Your task to perform on an android device: change timer sound Image 0: 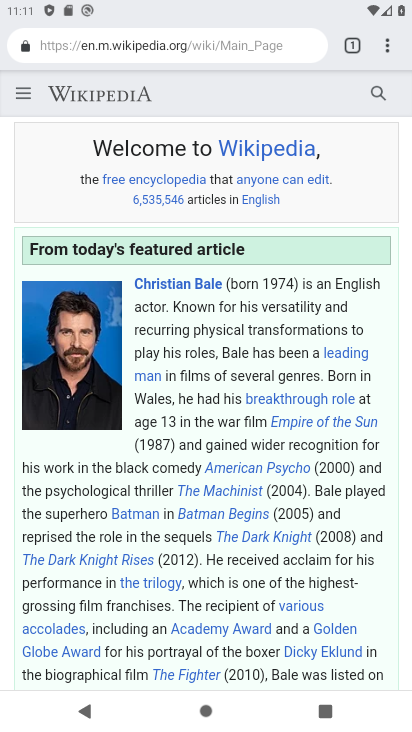
Step 0: press home button
Your task to perform on an android device: change timer sound Image 1: 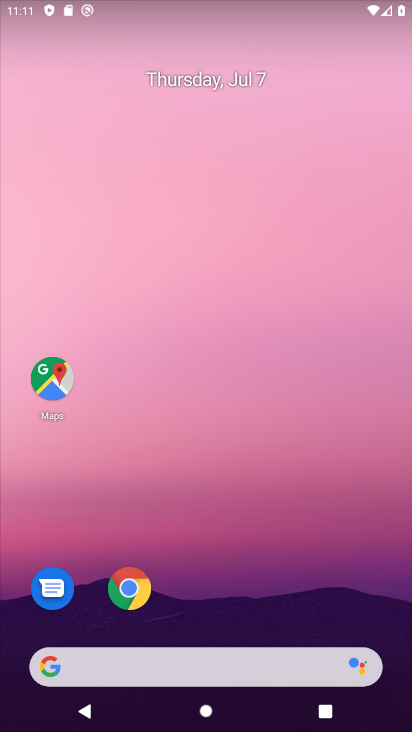
Step 1: drag from (241, 560) to (243, 228)
Your task to perform on an android device: change timer sound Image 2: 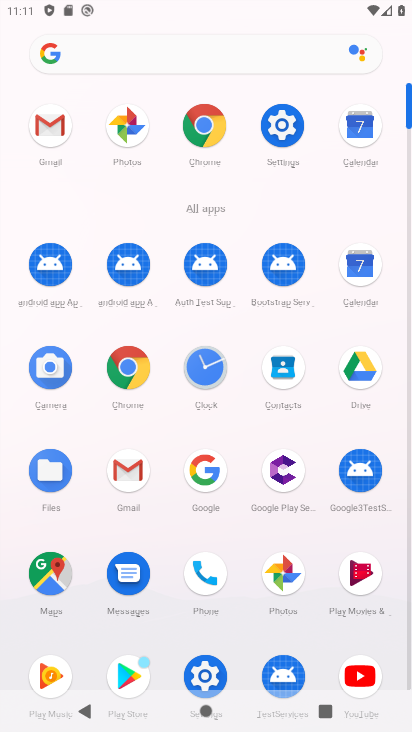
Step 2: click (208, 362)
Your task to perform on an android device: change timer sound Image 3: 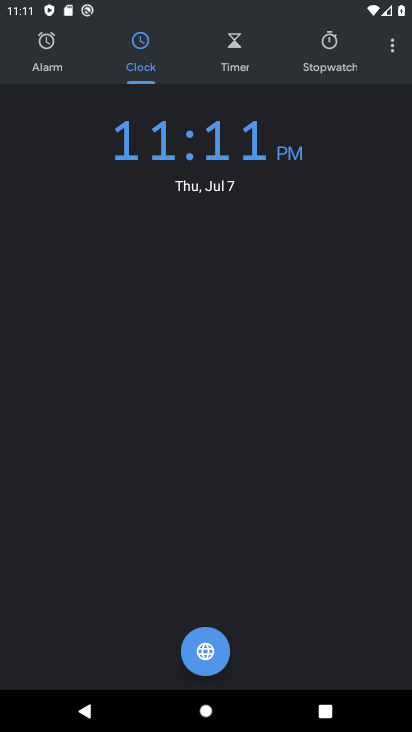
Step 3: click (387, 42)
Your task to perform on an android device: change timer sound Image 4: 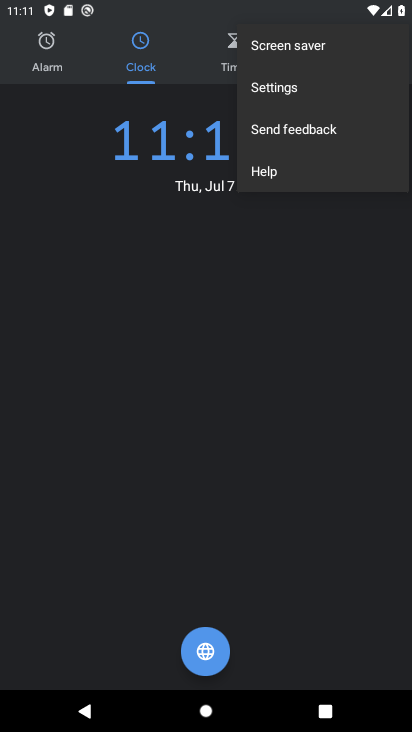
Step 4: click (329, 87)
Your task to perform on an android device: change timer sound Image 5: 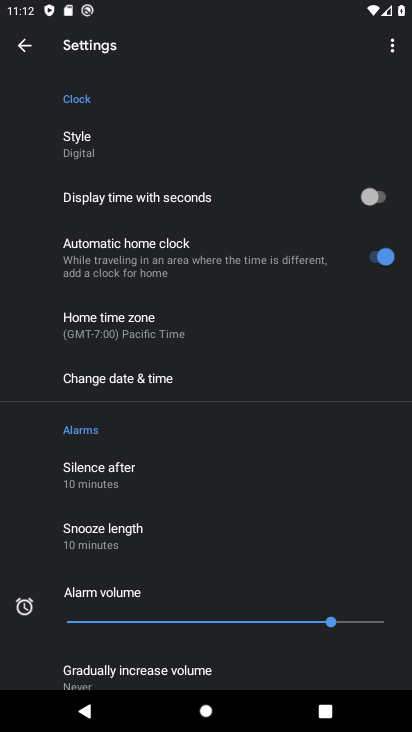
Step 5: drag from (189, 430) to (189, 258)
Your task to perform on an android device: change timer sound Image 6: 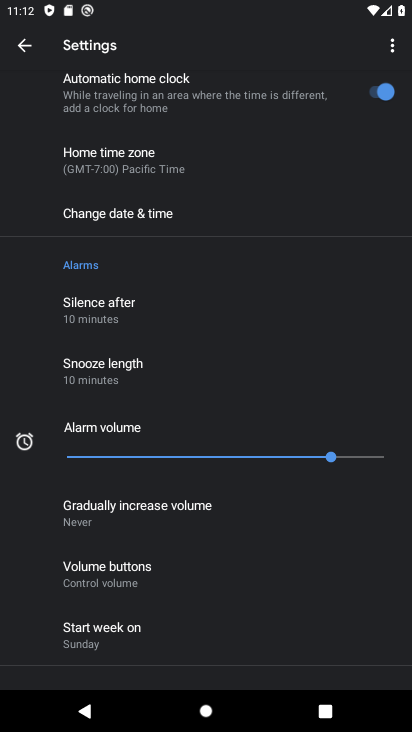
Step 6: drag from (132, 595) to (123, 245)
Your task to perform on an android device: change timer sound Image 7: 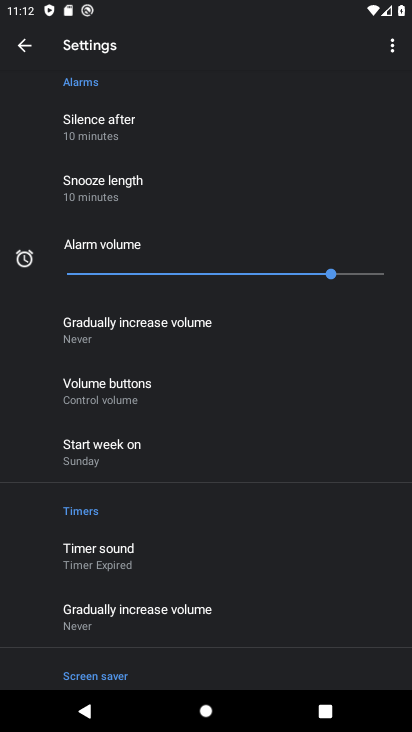
Step 7: click (96, 559)
Your task to perform on an android device: change timer sound Image 8: 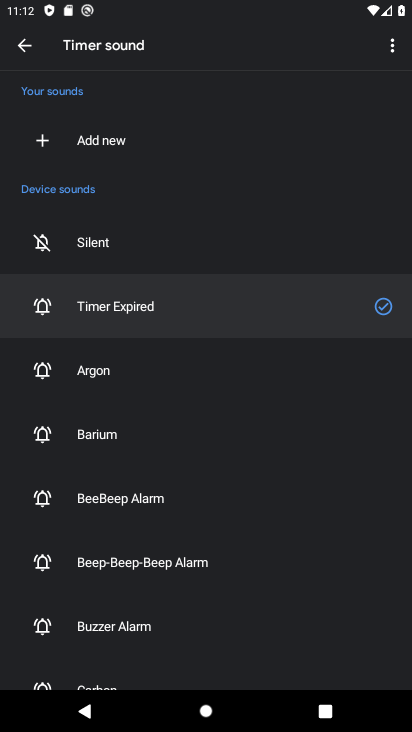
Step 8: click (130, 374)
Your task to perform on an android device: change timer sound Image 9: 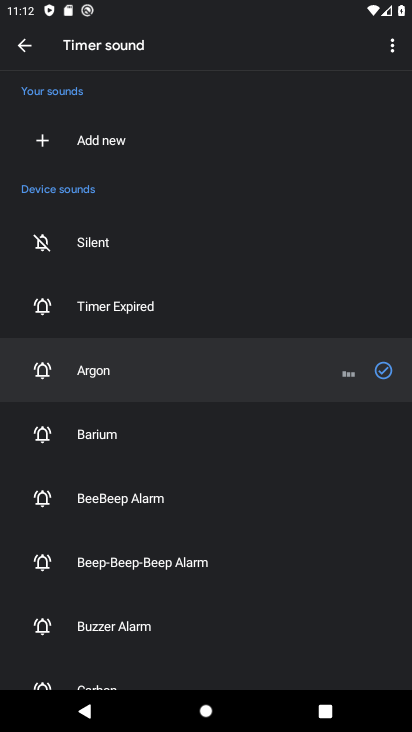
Step 9: task complete